Your task to perform on an android device: Do I have any events tomorrow? Image 0: 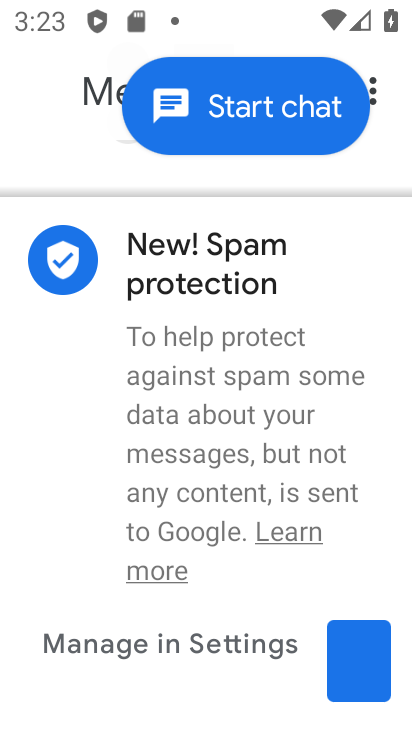
Step 0: press back button
Your task to perform on an android device: Do I have any events tomorrow? Image 1: 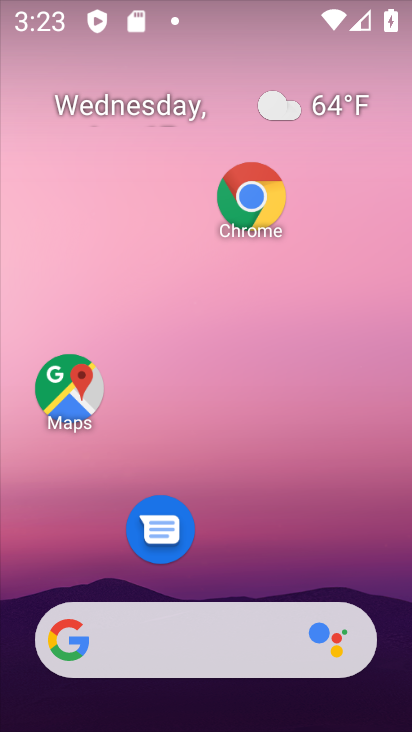
Step 1: drag from (193, 611) to (198, 263)
Your task to perform on an android device: Do I have any events tomorrow? Image 2: 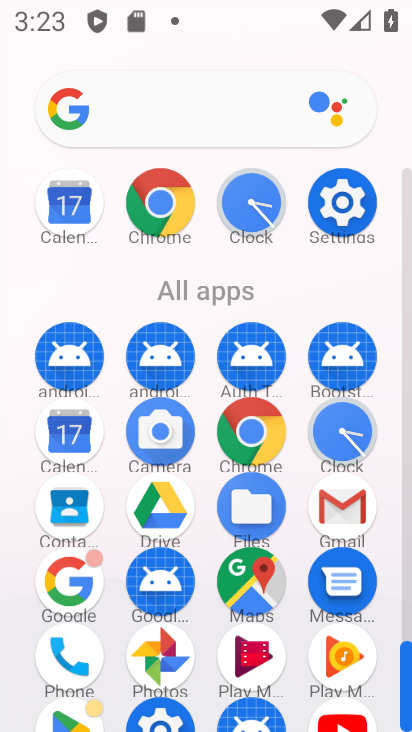
Step 2: click (328, 182)
Your task to perform on an android device: Do I have any events tomorrow? Image 3: 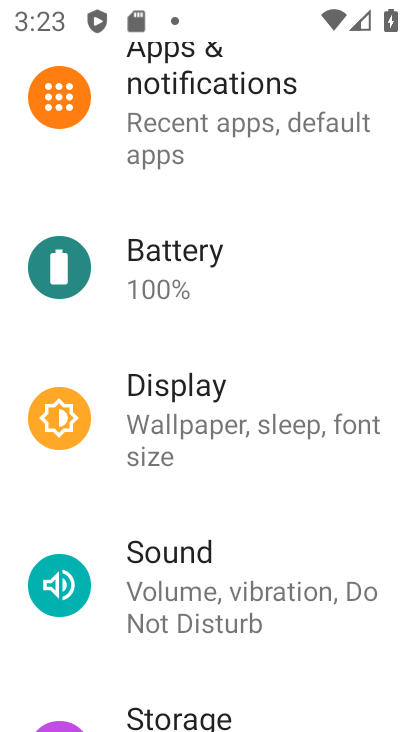
Step 3: press home button
Your task to perform on an android device: Do I have any events tomorrow? Image 4: 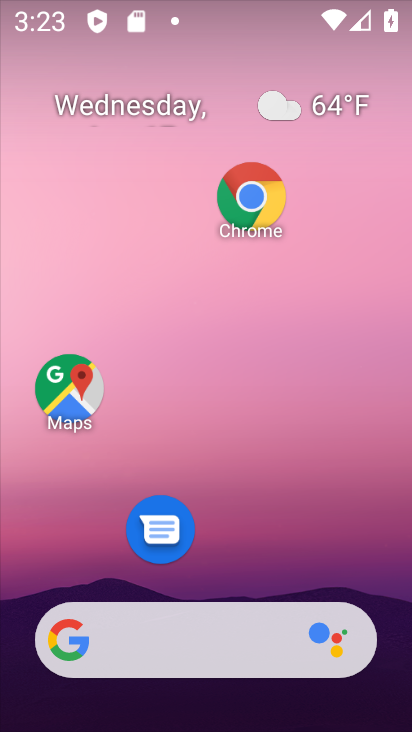
Step 4: drag from (212, 605) to (198, 124)
Your task to perform on an android device: Do I have any events tomorrow? Image 5: 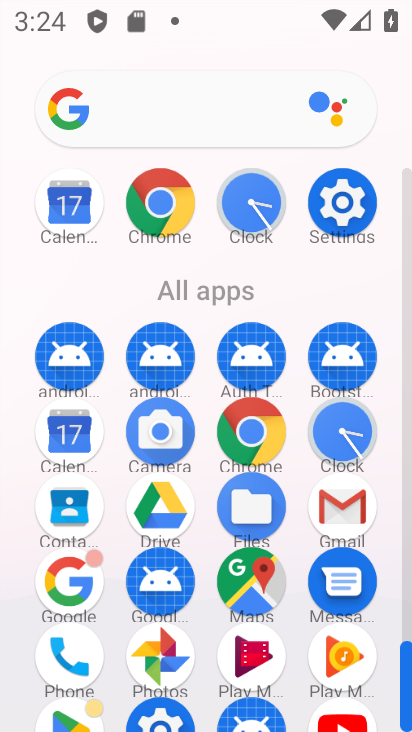
Step 5: click (73, 451)
Your task to perform on an android device: Do I have any events tomorrow? Image 6: 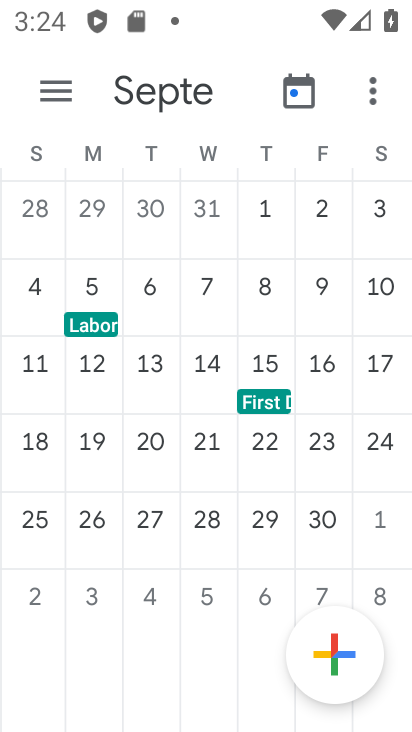
Step 6: drag from (44, 357) to (357, 435)
Your task to perform on an android device: Do I have any events tomorrow? Image 7: 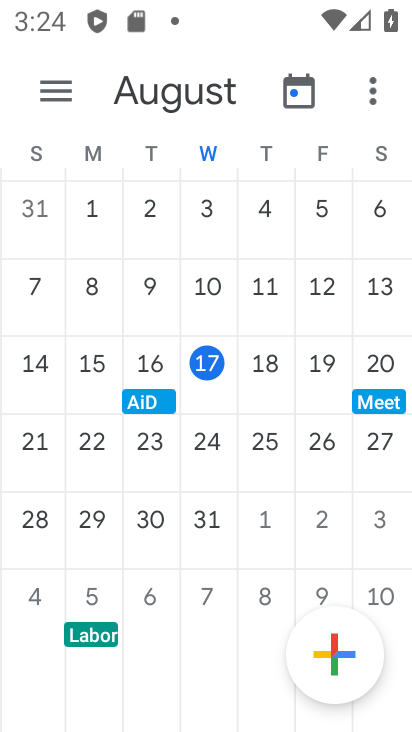
Step 7: click (254, 377)
Your task to perform on an android device: Do I have any events tomorrow? Image 8: 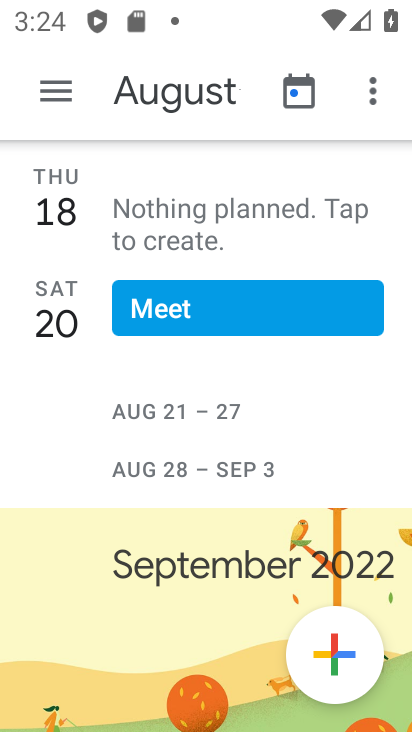
Step 8: task complete